Your task to perform on an android device: Go to wifi settings Image 0: 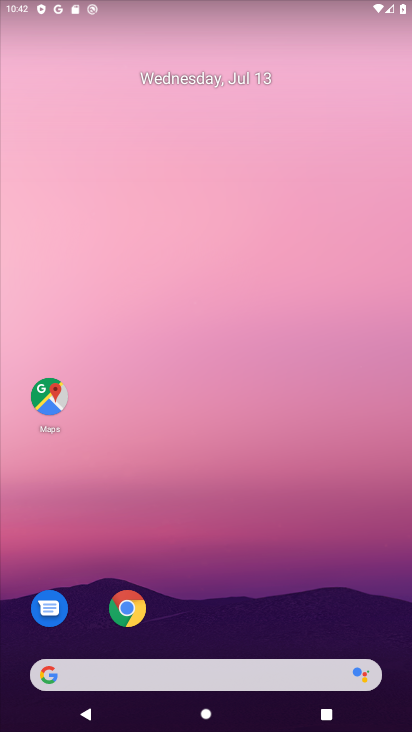
Step 0: drag from (307, 594) to (300, 82)
Your task to perform on an android device: Go to wifi settings Image 1: 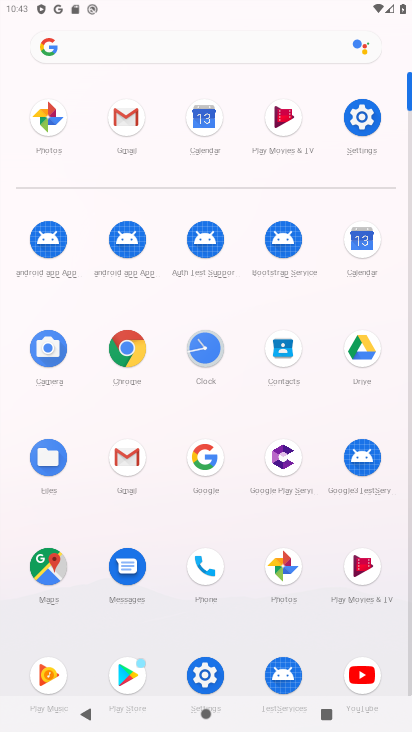
Step 1: click (369, 113)
Your task to perform on an android device: Go to wifi settings Image 2: 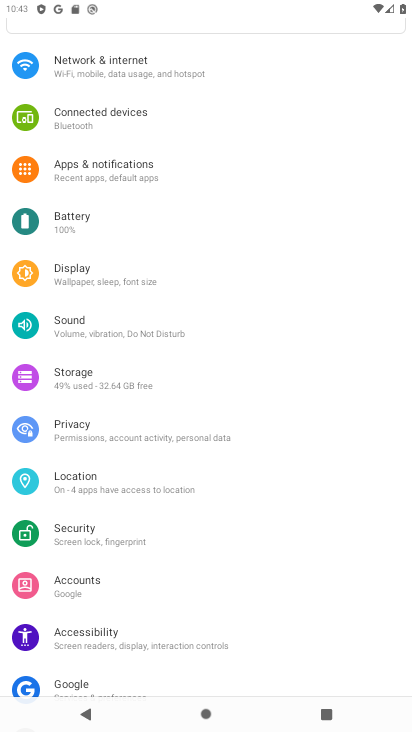
Step 2: click (111, 70)
Your task to perform on an android device: Go to wifi settings Image 3: 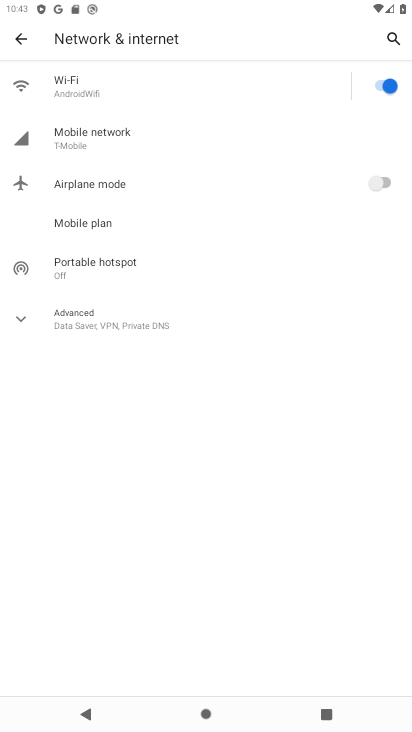
Step 3: click (76, 94)
Your task to perform on an android device: Go to wifi settings Image 4: 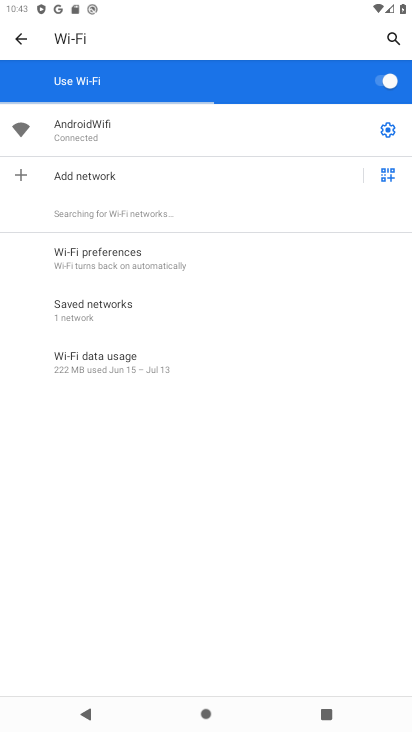
Step 4: task complete